Your task to perform on an android device: Open Chrome and go to the settings page Image 0: 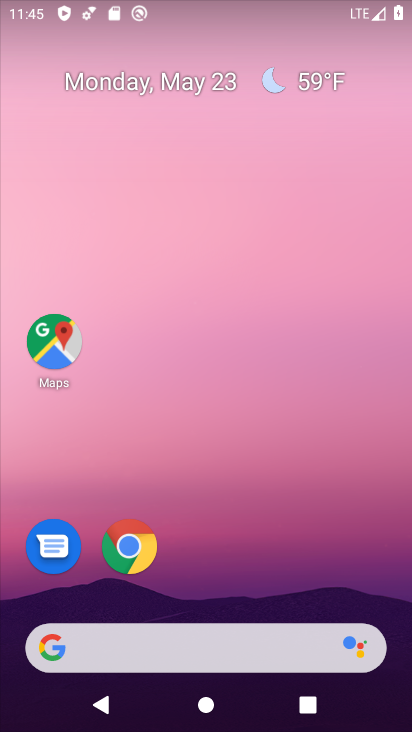
Step 0: drag from (220, 483) to (280, 105)
Your task to perform on an android device: Open Chrome and go to the settings page Image 1: 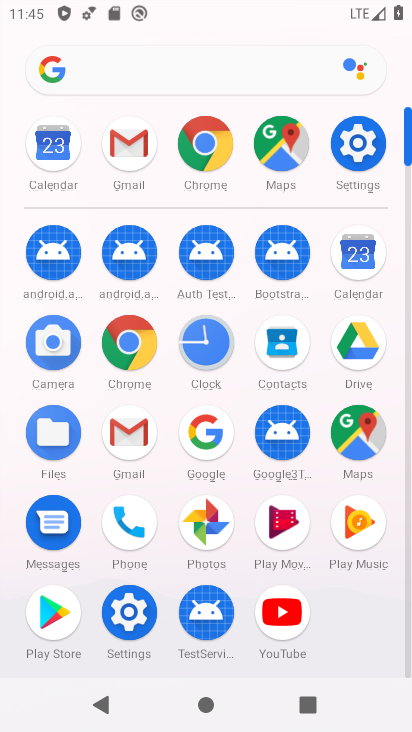
Step 1: click (127, 345)
Your task to perform on an android device: Open Chrome and go to the settings page Image 2: 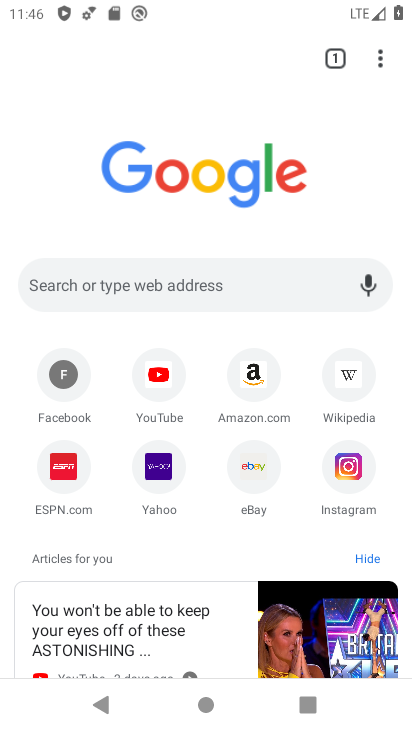
Step 2: drag from (200, 504) to (225, 290)
Your task to perform on an android device: Open Chrome and go to the settings page Image 3: 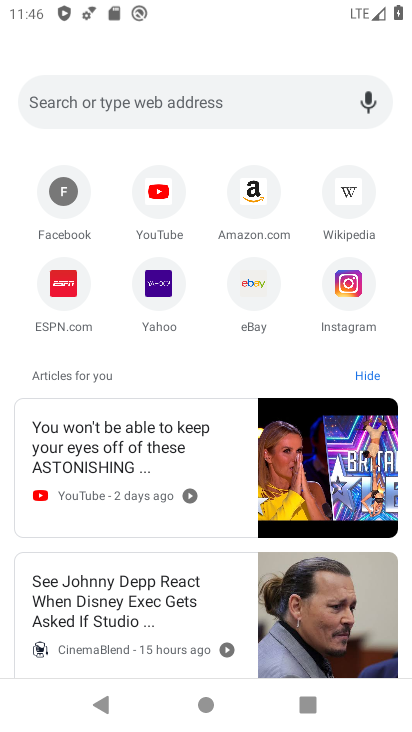
Step 3: drag from (109, 96) to (253, 559)
Your task to perform on an android device: Open Chrome and go to the settings page Image 4: 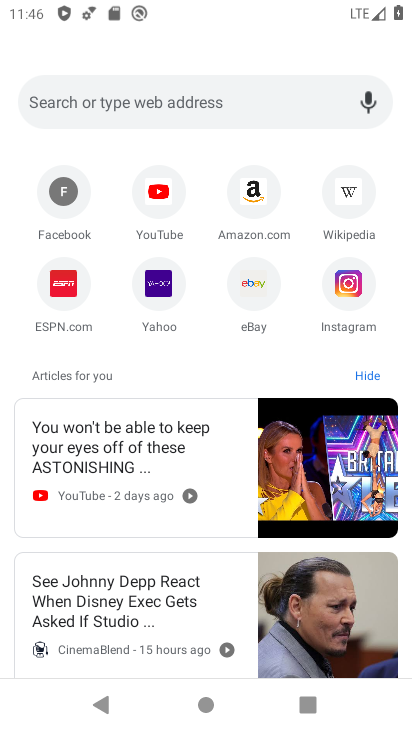
Step 4: drag from (302, 169) to (345, 495)
Your task to perform on an android device: Open Chrome and go to the settings page Image 5: 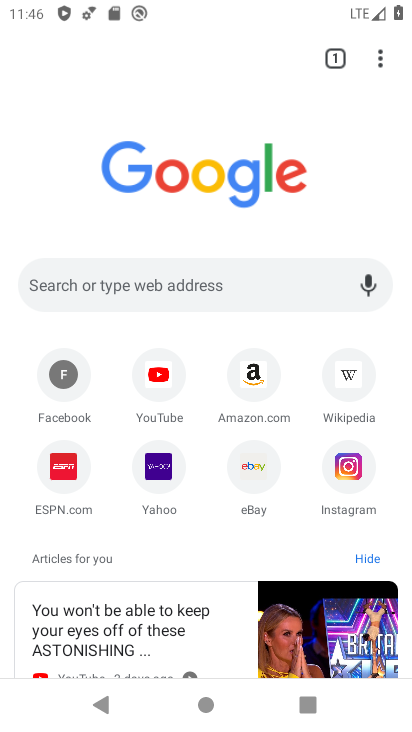
Step 5: click (381, 52)
Your task to perform on an android device: Open Chrome and go to the settings page Image 6: 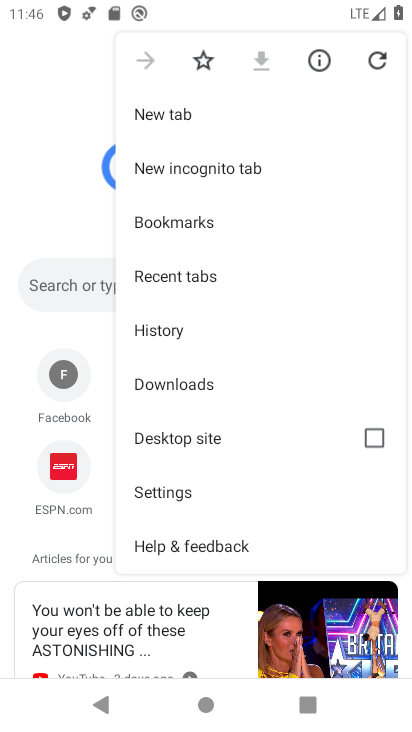
Step 6: click (195, 483)
Your task to perform on an android device: Open Chrome and go to the settings page Image 7: 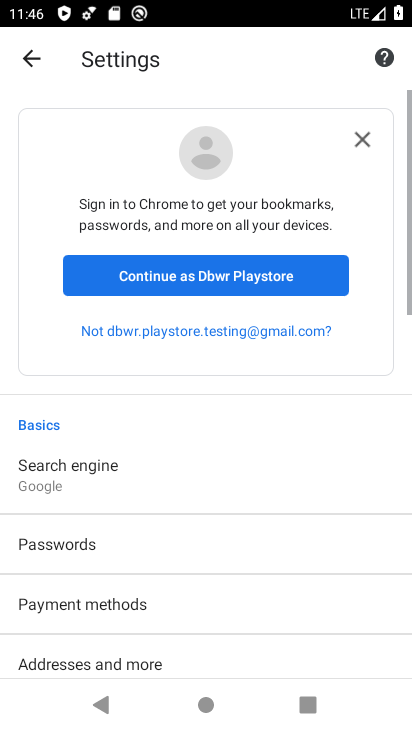
Step 7: task complete